Your task to perform on an android device: open a new tab in the chrome app Image 0: 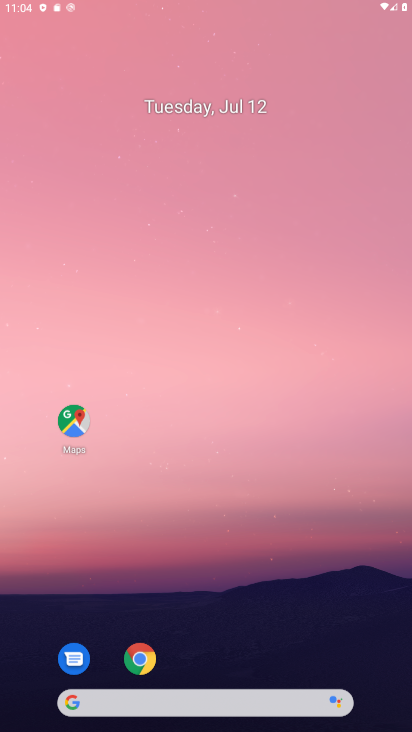
Step 0: click (170, 84)
Your task to perform on an android device: open a new tab in the chrome app Image 1: 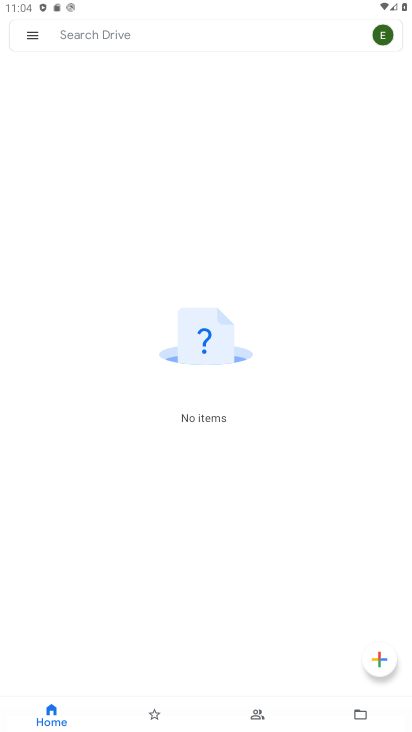
Step 1: press home button
Your task to perform on an android device: open a new tab in the chrome app Image 2: 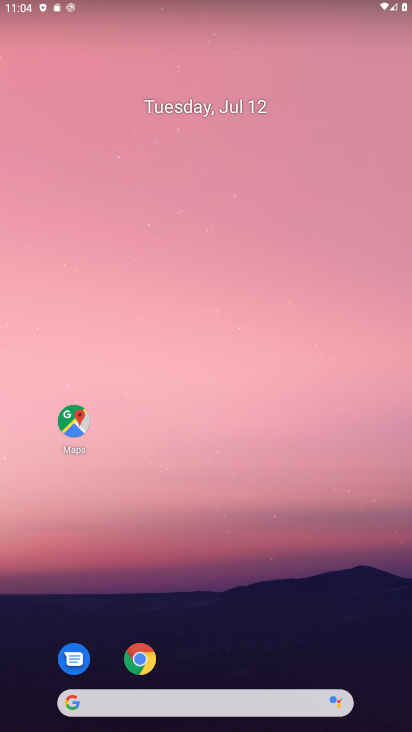
Step 2: click (141, 661)
Your task to perform on an android device: open a new tab in the chrome app Image 3: 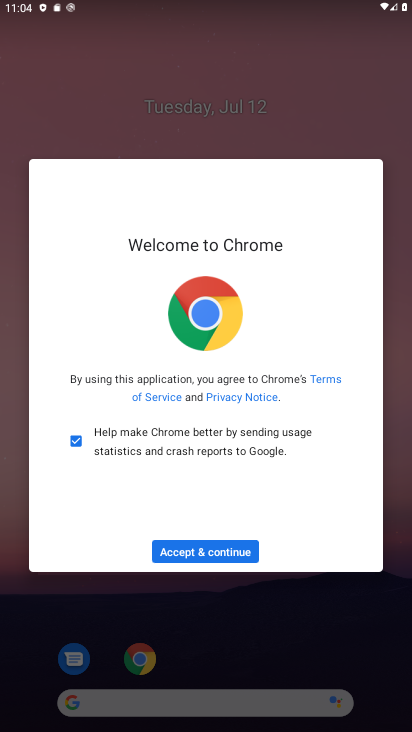
Step 3: click (208, 554)
Your task to perform on an android device: open a new tab in the chrome app Image 4: 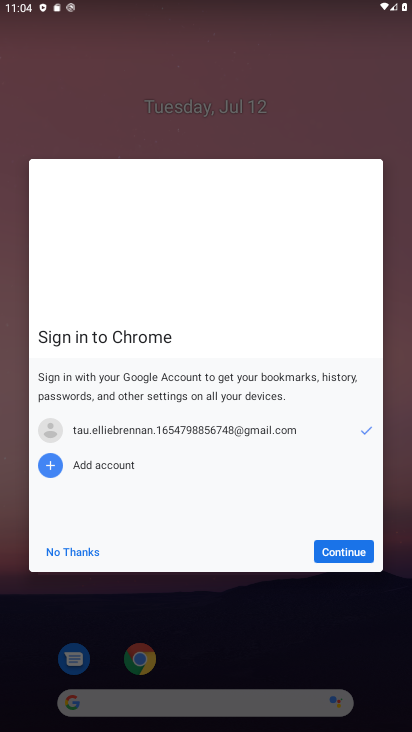
Step 4: click (353, 543)
Your task to perform on an android device: open a new tab in the chrome app Image 5: 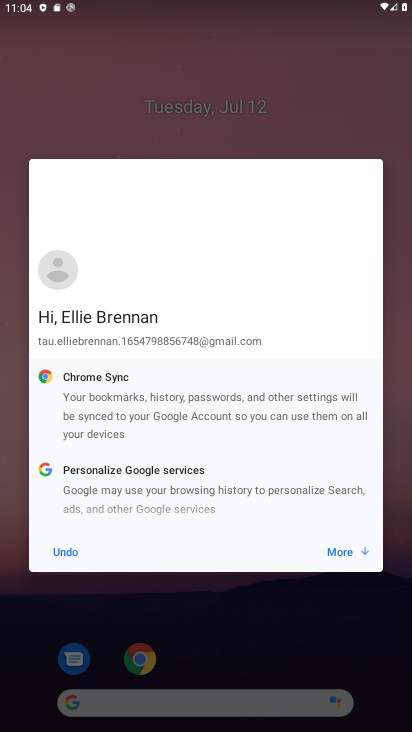
Step 5: click (347, 551)
Your task to perform on an android device: open a new tab in the chrome app Image 6: 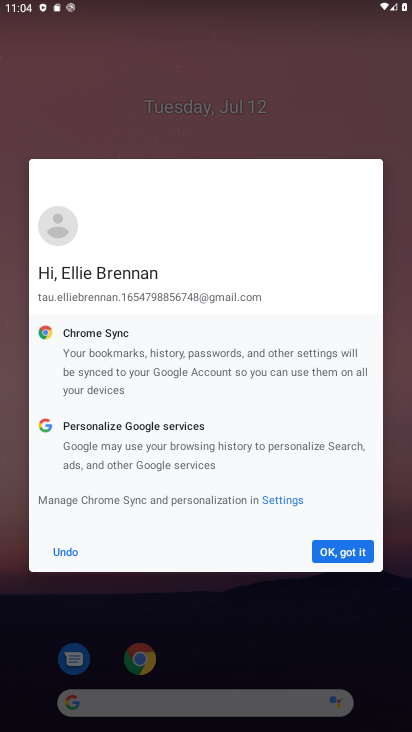
Step 6: click (341, 559)
Your task to perform on an android device: open a new tab in the chrome app Image 7: 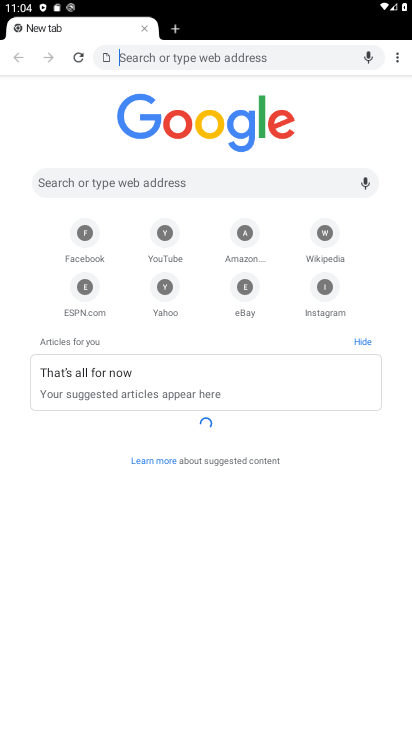
Step 7: click (174, 23)
Your task to perform on an android device: open a new tab in the chrome app Image 8: 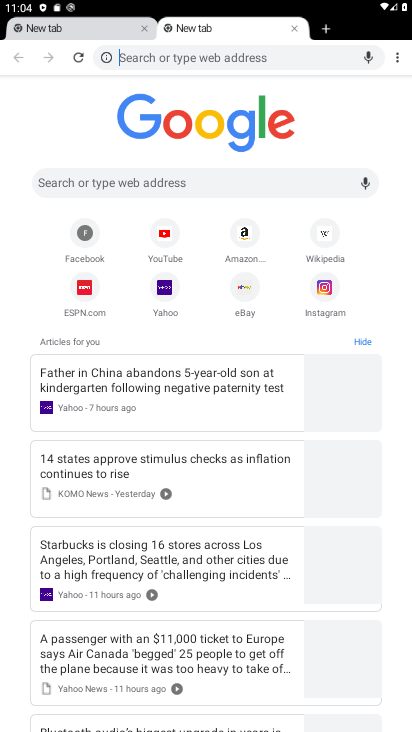
Step 8: task complete